Your task to perform on an android device: Open Youtube and go to "Your channel" Image 0: 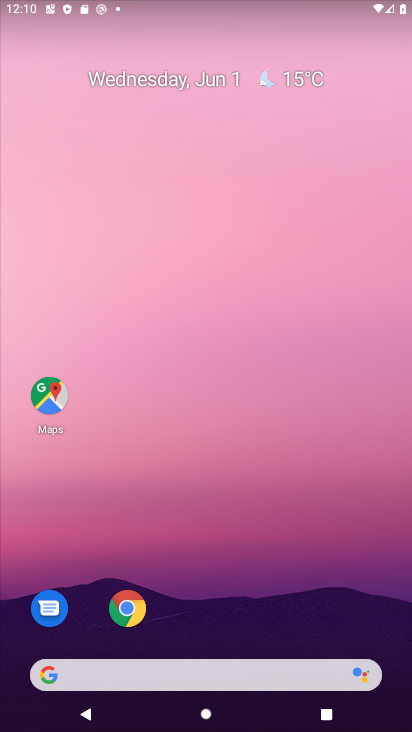
Step 0: drag from (197, 641) to (303, 30)
Your task to perform on an android device: Open Youtube and go to "Your channel" Image 1: 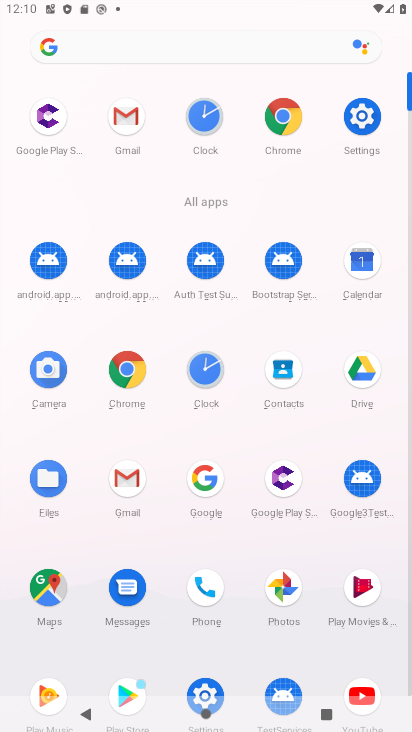
Step 1: drag from (223, 544) to (247, 268)
Your task to perform on an android device: Open Youtube and go to "Your channel" Image 2: 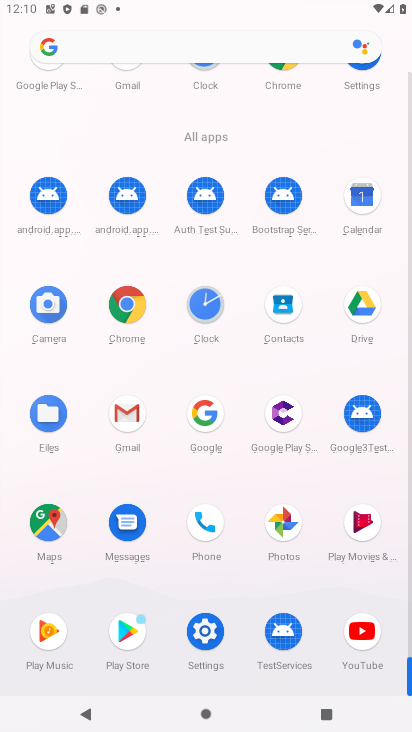
Step 2: click (369, 644)
Your task to perform on an android device: Open Youtube and go to "Your channel" Image 3: 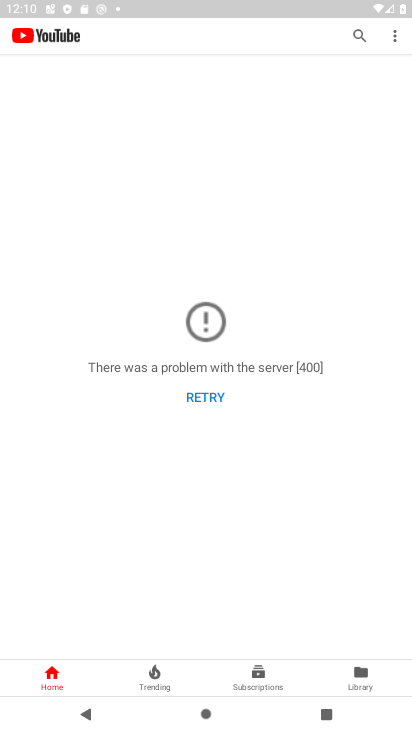
Step 3: click (202, 398)
Your task to perform on an android device: Open Youtube and go to "Your channel" Image 4: 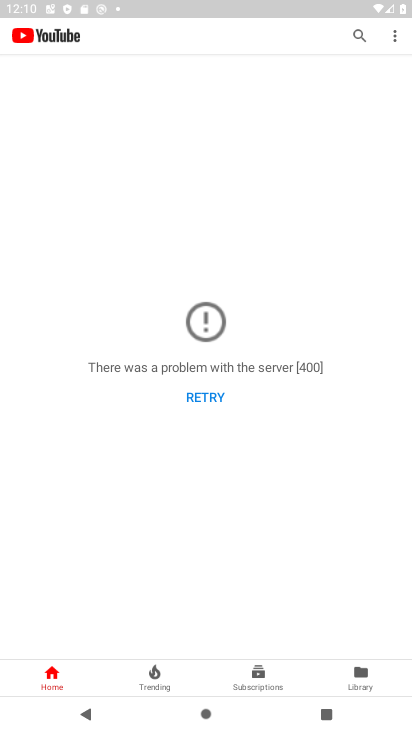
Step 4: click (202, 401)
Your task to perform on an android device: Open Youtube and go to "Your channel" Image 5: 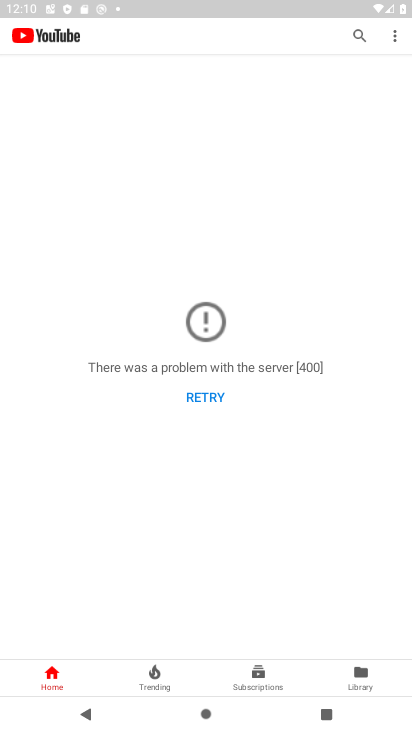
Step 5: click (206, 395)
Your task to perform on an android device: Open Youtube and go to "Your channel" Image 6: 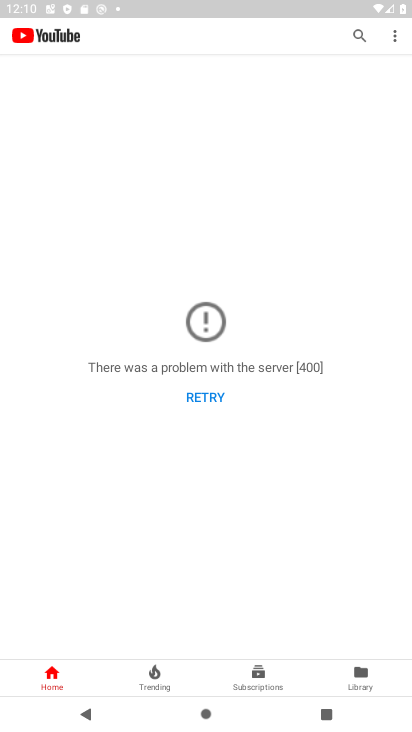
Step 6: click (206, 395)
Your task to perform on an android device: Open Youtube and go to "Your channel" Image 7: 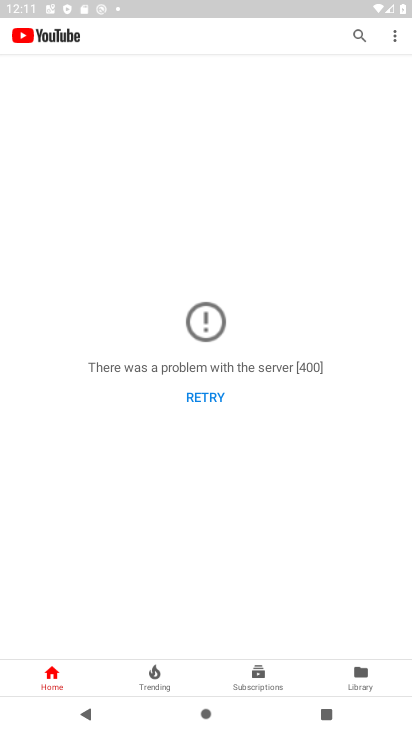
Step 7: click (206, 395)
Your task to perform on an android device: Open Youtube and go to "Your channel" Image 8: 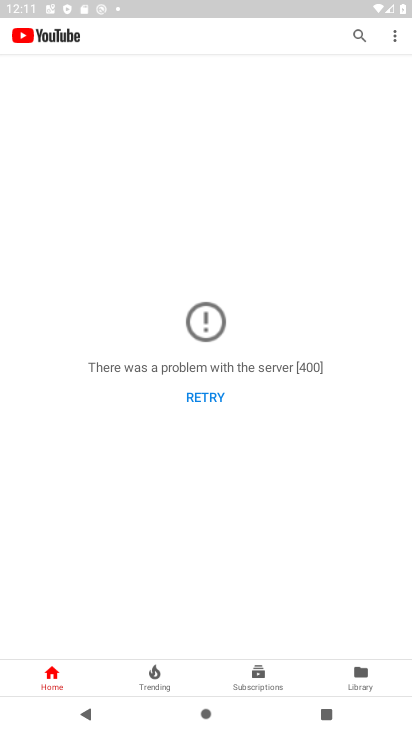
Step 8: click (206, 395)
Your task to perform on an android device: Open Youtube and go to "Your channel" Image 9: 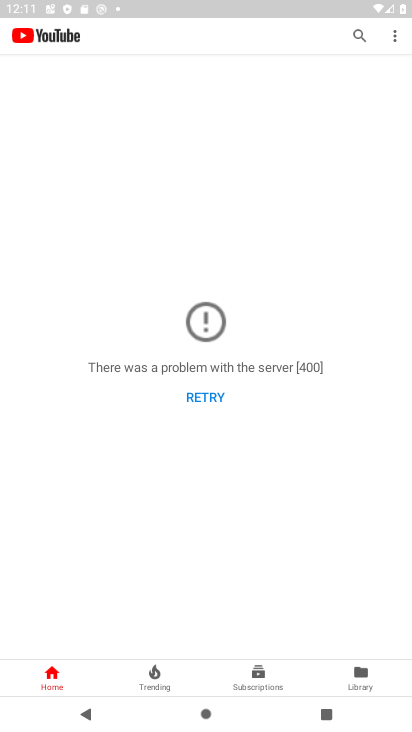
Step 9: click (206, 396)
Your task to perform on an android device: Open Youtube and go to "Your channel" Image 10: 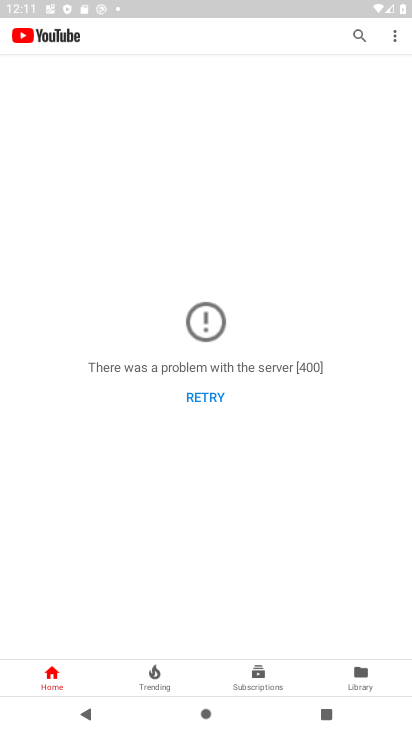
Step 10: click (356, 669)
Your task to perform on an android device: Open Youtube and go to "Your channel" Image 11: 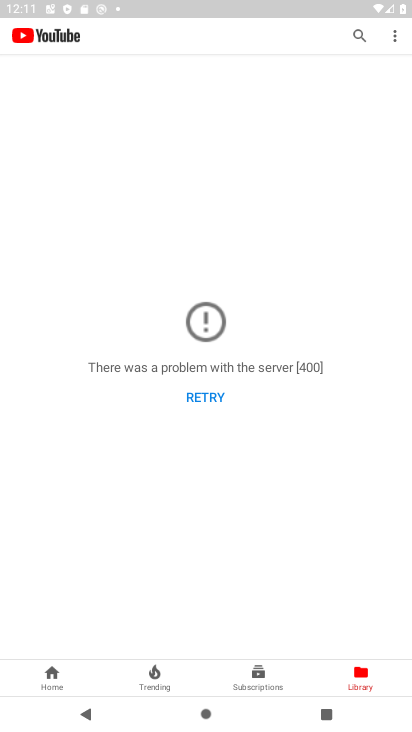
Step 11: click (399, 37)
Your task to perform on an android device: Open Youtube and go to "Your channel" Image 12: 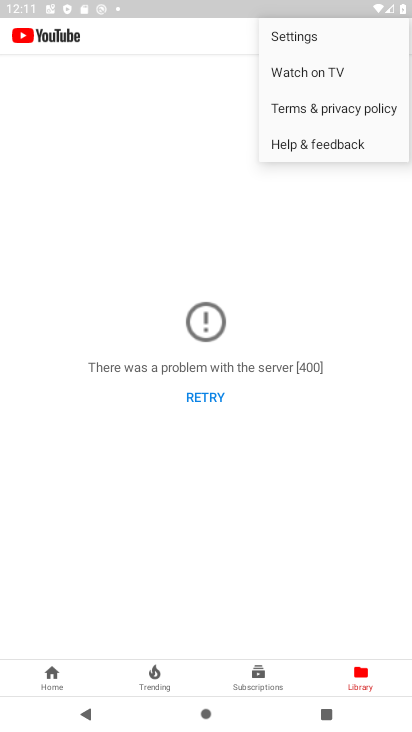
Step 12: click (302, 289)
Your task to perform on an android device: Open Youtube and go to "Your channel" Image 13: 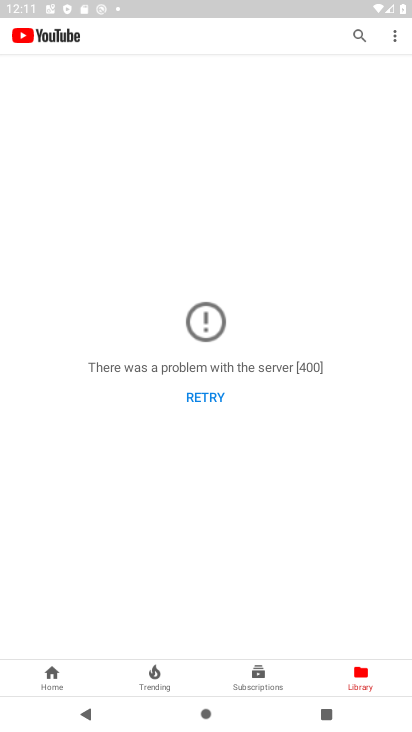
Step 13: click (400, 41)
Your task to perform on an android device: Open Youtube and go to "Your channel" Image 14: 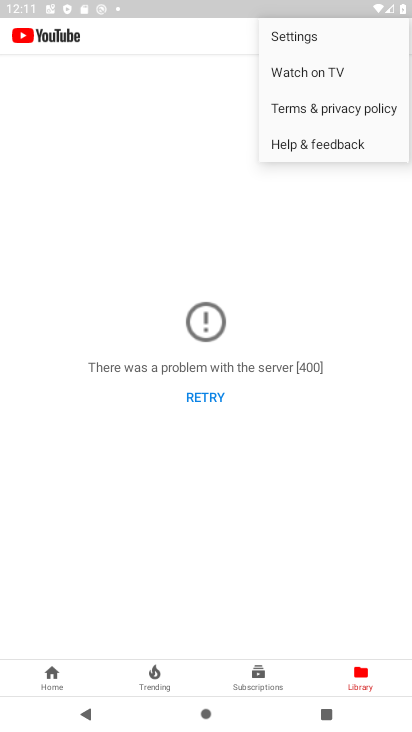
Step 14: click (305, 36)
Your task to perform on an android device: Open Youtube and go to "Your channel" Image 15: 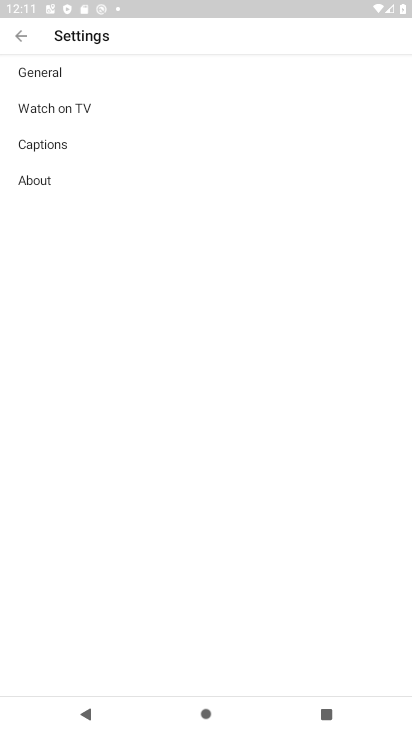
Step 15: task complete